Your task to perform on an android device: Toggle the flashlight Image 0: 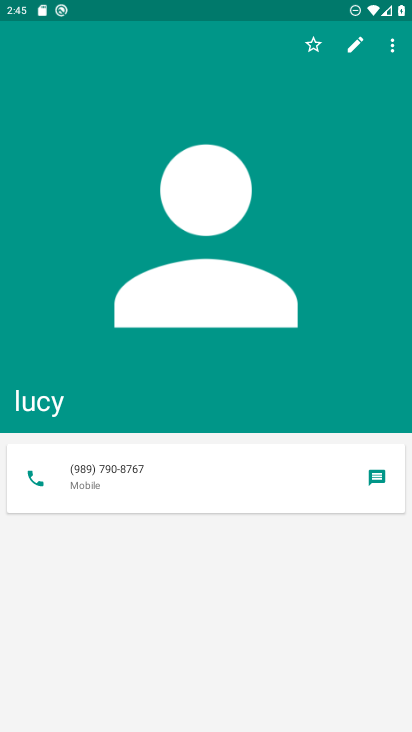
Step 0: press home button
Your task to perform on an android device: Toggle the flashlight Image 1: 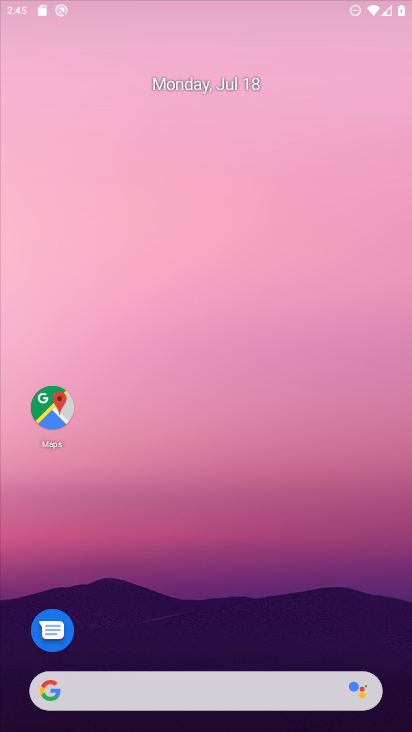
Step 1: task complete